Your task to perform on an android device: See recent photos Image 0: 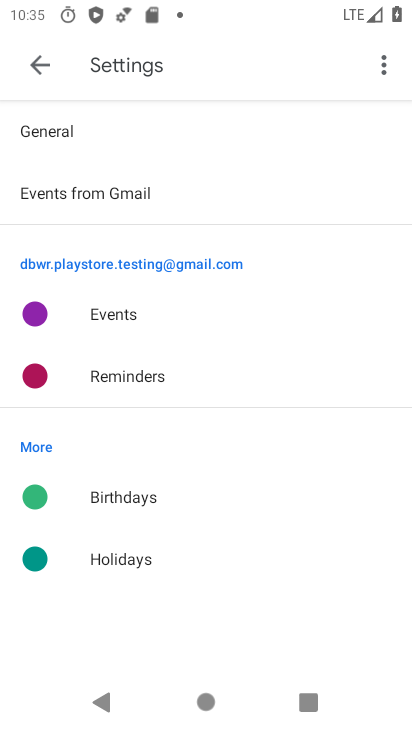
Step 0: press home button
Your task to perform on an android device: See recent photos Image 1: 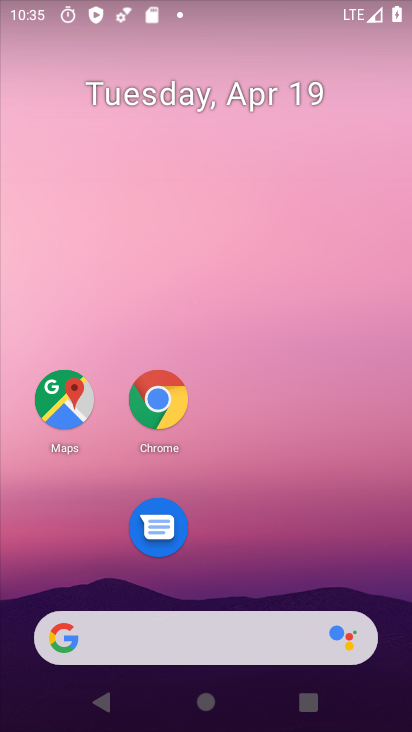
Step 1: drag from (246, 665) to (343, 141)
Your task to perform on an android device: See recent photos Image 2: 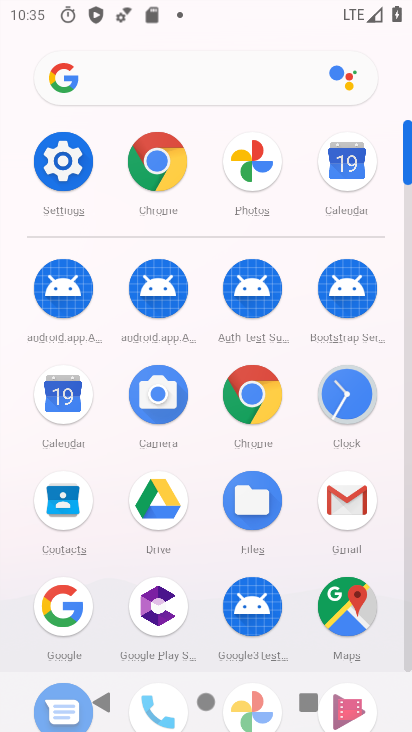
Step 2: drag from (304, 509) to (335, 374)
Your task to perform on an android device: See recent photos Image 3: 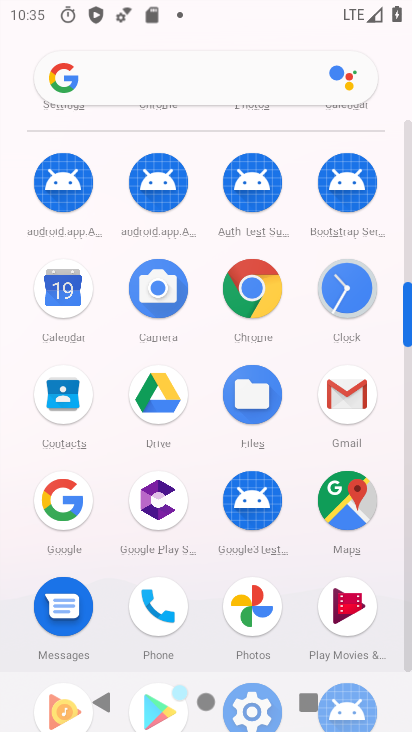
Step 3: click (248, 594)
Your task to perform on an android device: See recent photos Image 4: 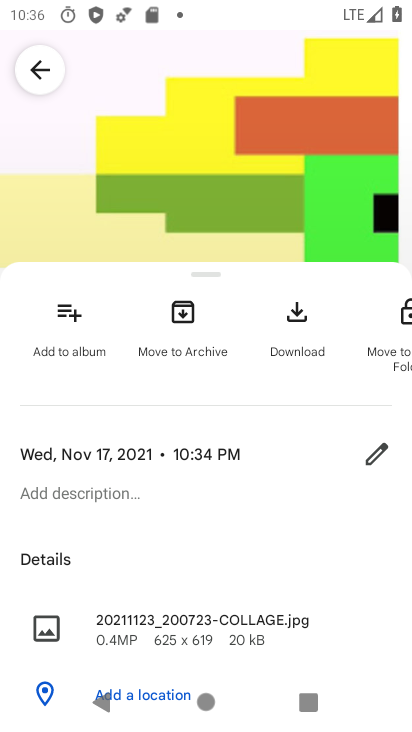
Step 4: click (36, 86)
Your task to perform on an android device: See recent photos Image 5: 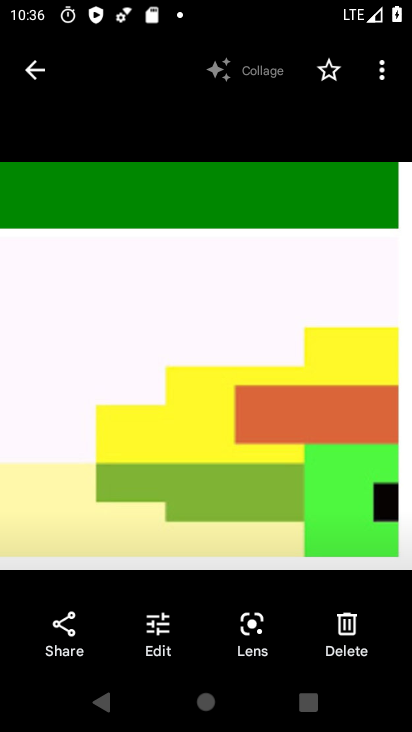
Step 5: click (24, 81)
Your task to perform on an android device: See recent photos Image 6: 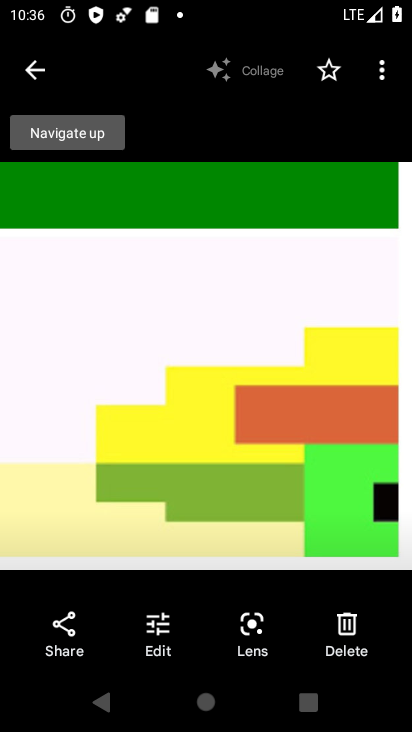
Step 6: task complete